Your task to perform on an android device: turn off notifications in google photos Image 0: 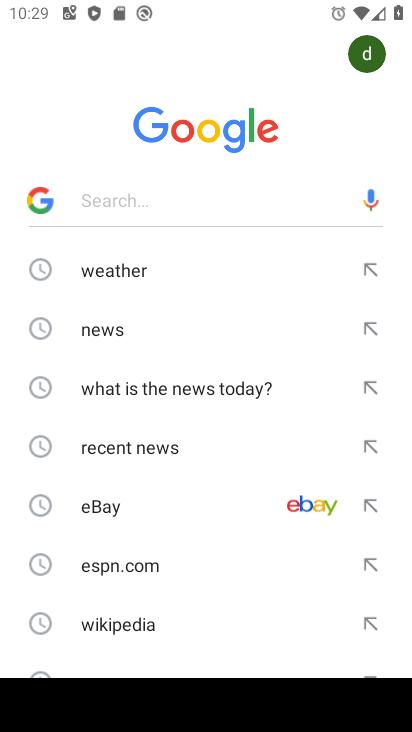
Step 0: press home button
Your task to perform on an android device: turn off notifications in google photos Image 1: 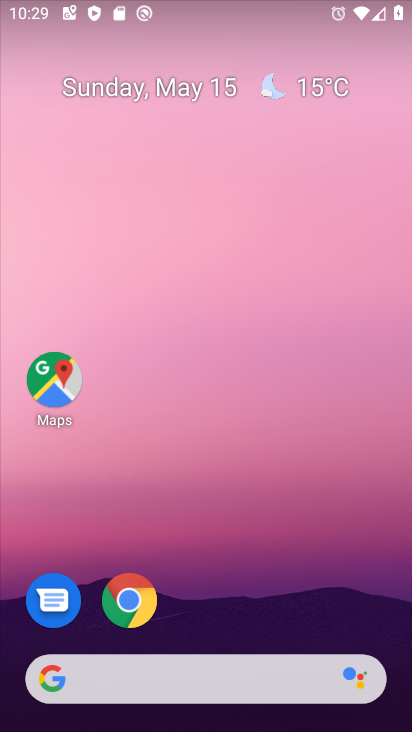
Step 1: drag from (353, 601) to (332, 206)
Your task to perform on an android device: turn off notifications in google photos Image 2: 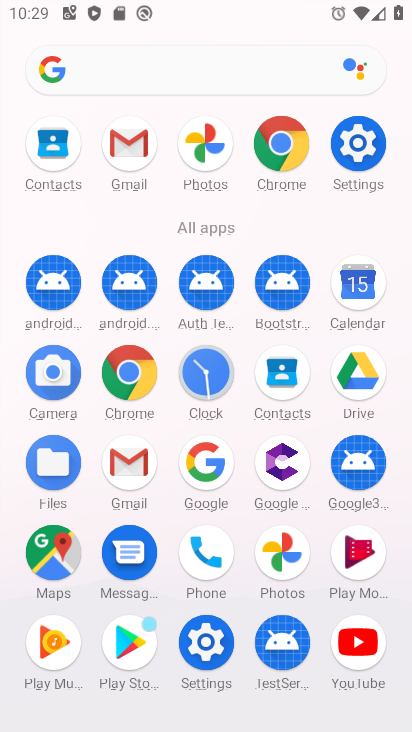
Step 2: click (293, 556)
Your task to perform on an android device: turn off notifications in google photos Image 3: 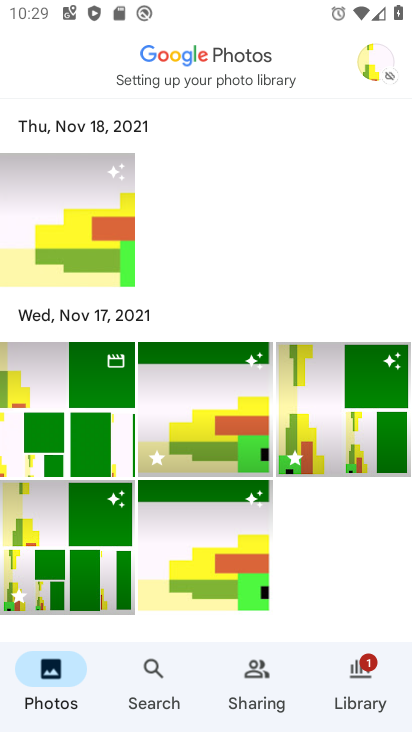
Step 3: click (372, 64)
Your task to perform on an android device: turn off notifications in google photos Image 4: 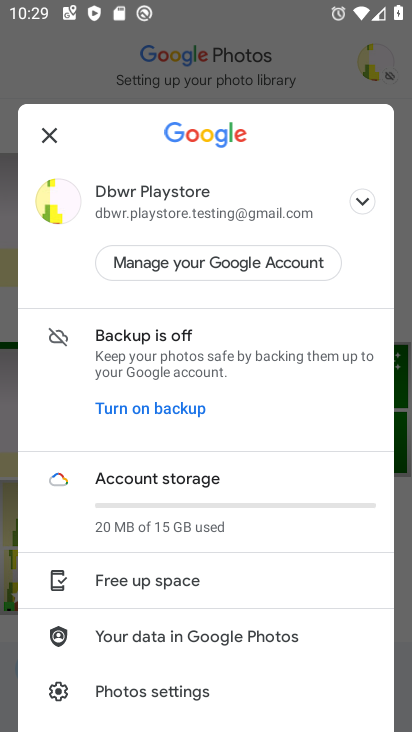
Step 4: click (169, 699)
Your task to perform on an android device: turn off notifications in google photos Image 5: 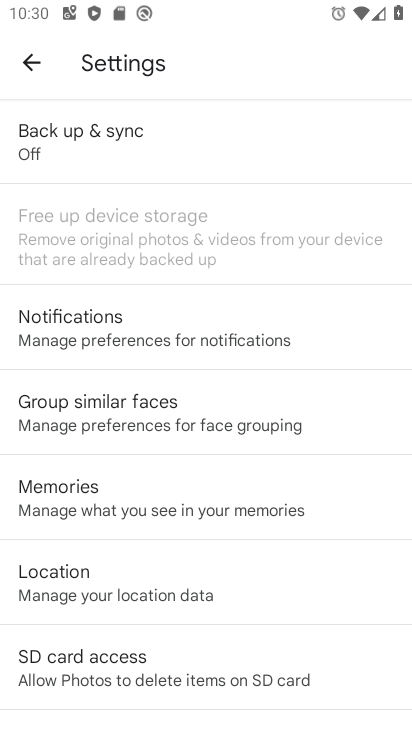
Step 5: click (185, 323)
Your task to perform on an android device: turn off notifications in google photos Image 6: 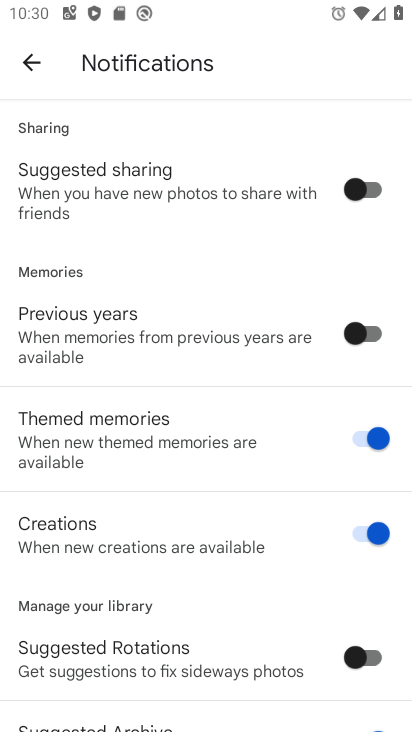
Step 6: drag from (290, 603) to (289, 381)
Your task to perform on an android device: turn off notifications in google photos Image 7: 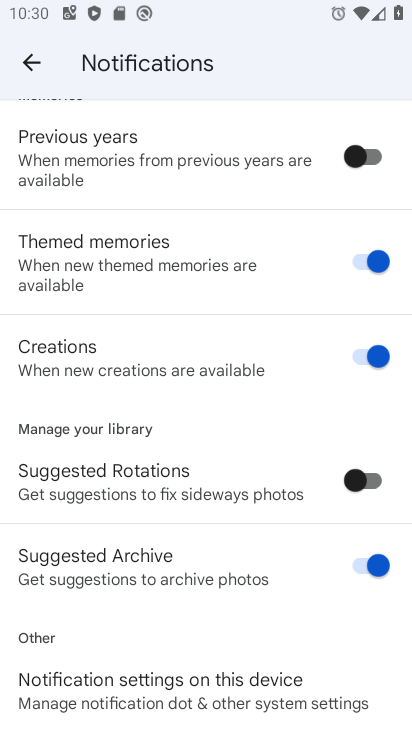
Step 7: click (272, 704)
Your task to perform on an android device: turn off notifications in google photos Image 8: 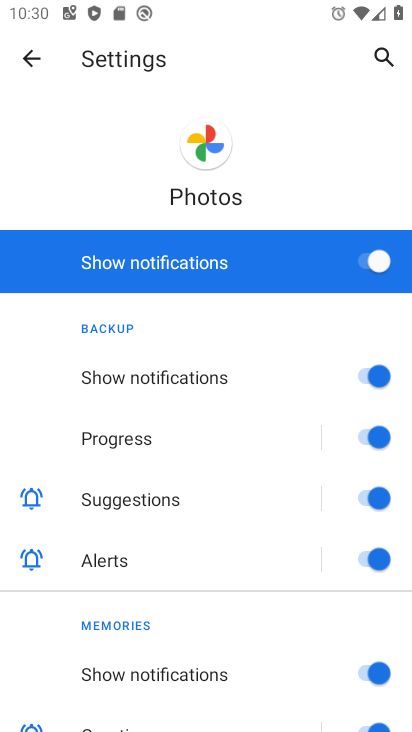
Step 8: click (364, 261)
Your task to perform on an android device: turn off notifications in google photos Image 9: 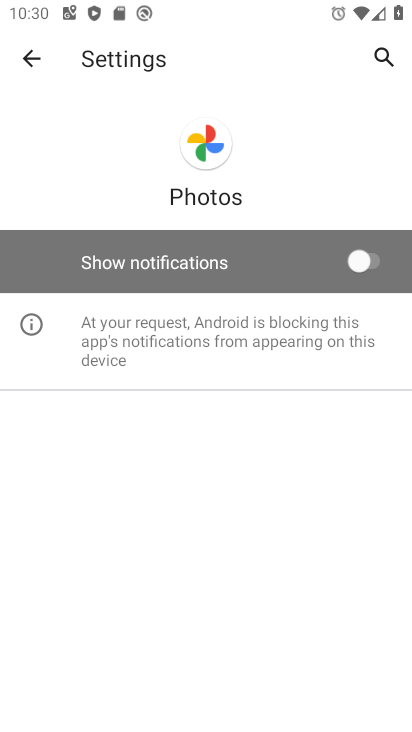
Step 9: task complete